Your task to perform on an android device: turn on bluetooth scan Image 0: 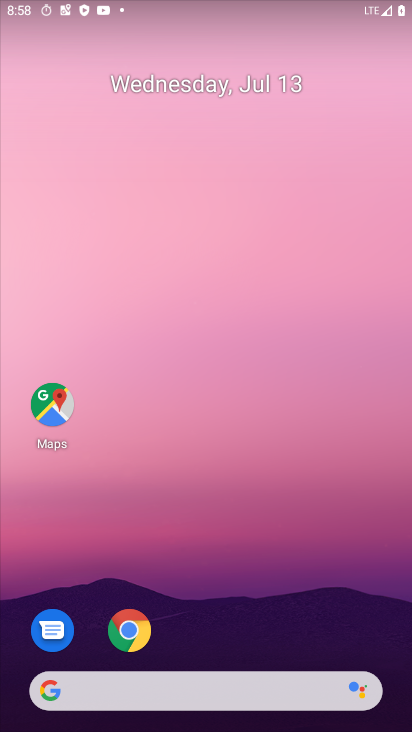
Step 0: drag from (320, 604) to (314, 165)
Your task to perform on an android device: turn on bluetooth scan Image 1: 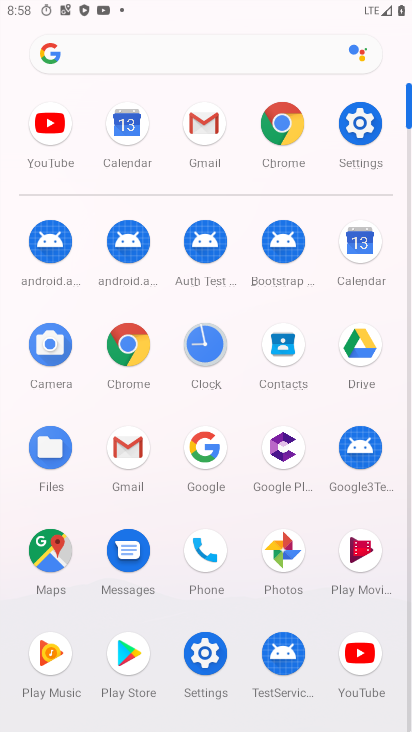
Step 1: click (359, 136)
Your task to perform on an android device: turn on bluetooth scan Image 2: 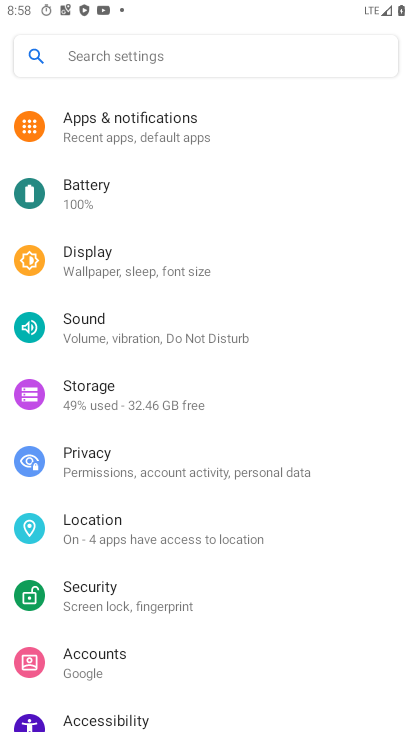
Step 2: drag from (354, 498) to (359, 337)
Your task to perform on an android device: turn on bluetooth scan Image 3: 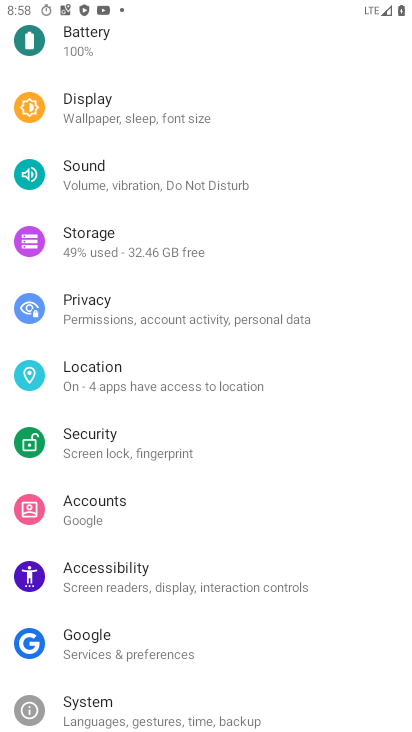
Step 3: drag from (353, 484) to (357, 323)
Your task to perform on an android device: turn on bluetooth scan Image 4: 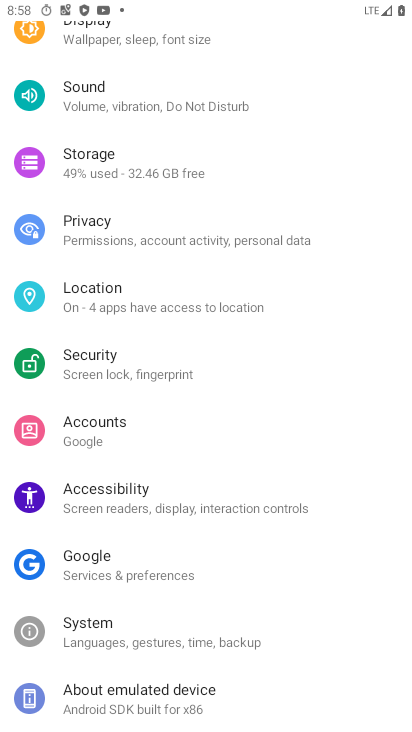
Step 4: drag from (354, 549) to (344, 304)
Your task to perform on an android device: turn on bluetooth scan Image 5: 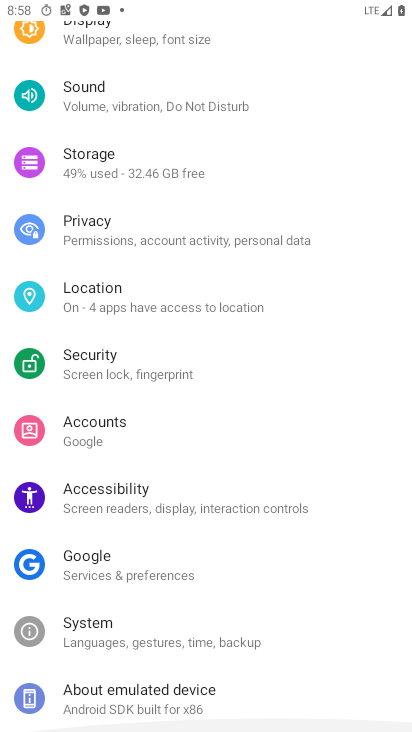
Step 5: drag from (346, 251) to (348, 407)
Your task to perform on an android device: turn on bluetooth scan Image 6: 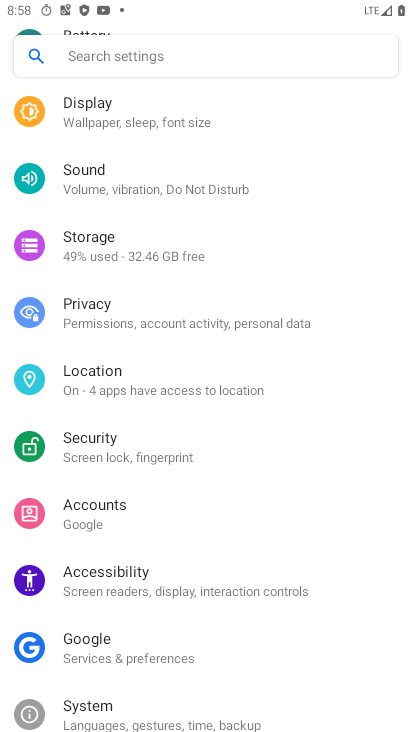
Step 6: drag from (345, 211) to (344, 353)
Your task to perform on an android device: turn on bluetooth scan Image 7: 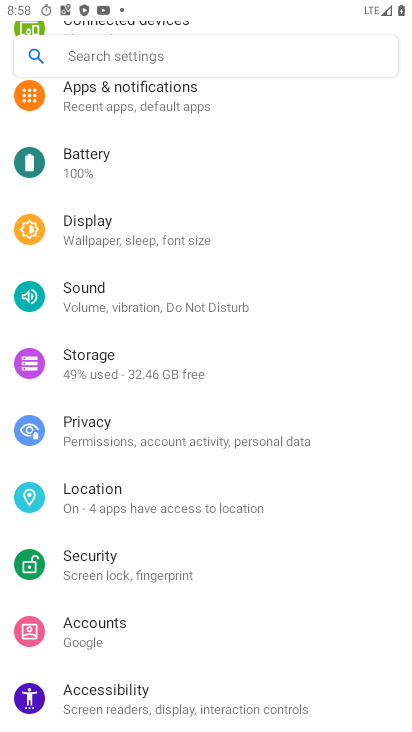
Step 7: drag from (349, 176) to (348, 307)
Your task to perform on an android device: turn on bluetooth scan Image 8: 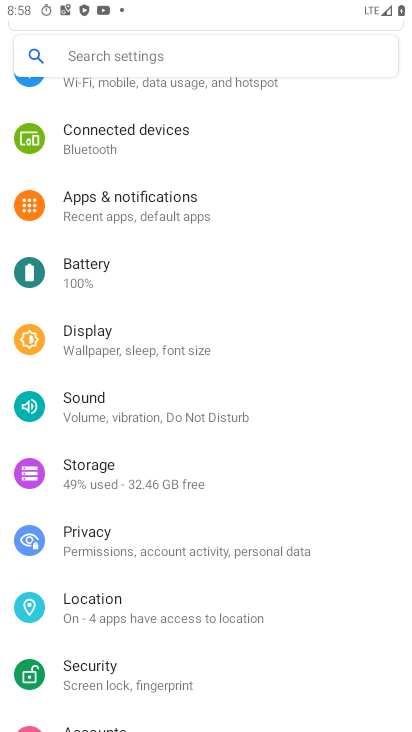
Step 8: drag from (347, 214) to (347, 376)
Your task to perform on an android device: turn on bluetooth scan Image 9: 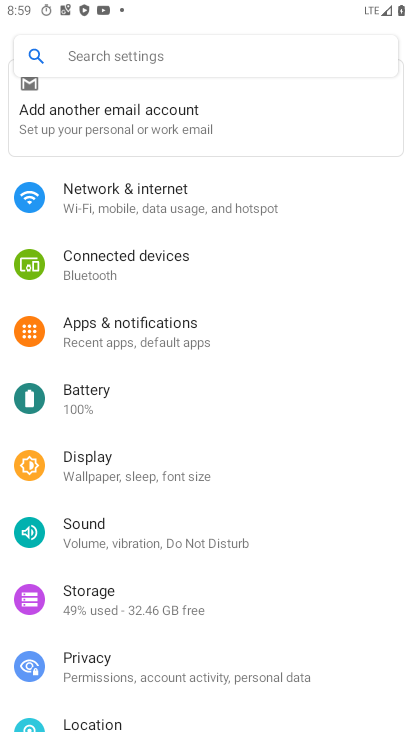
Step 9: drag from (322, 424) to (321, 289)
Your task to perform on an android device: turn on bluetooth scan Image 10: 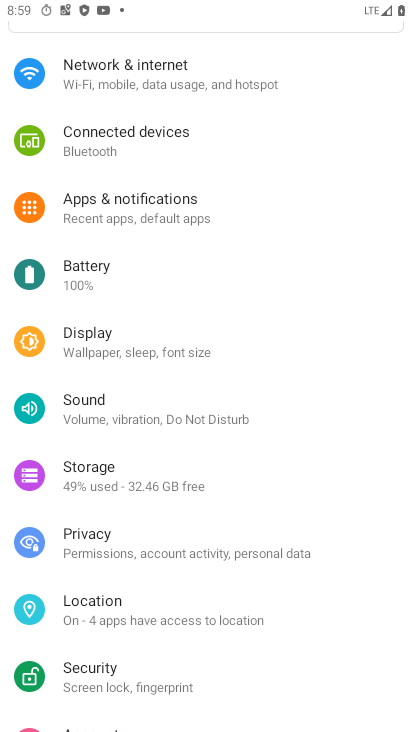
Step 10: drag from (321, 459) to (320, 258)
Your task to perform on an android device: turn on bluetooth scan Image 11: 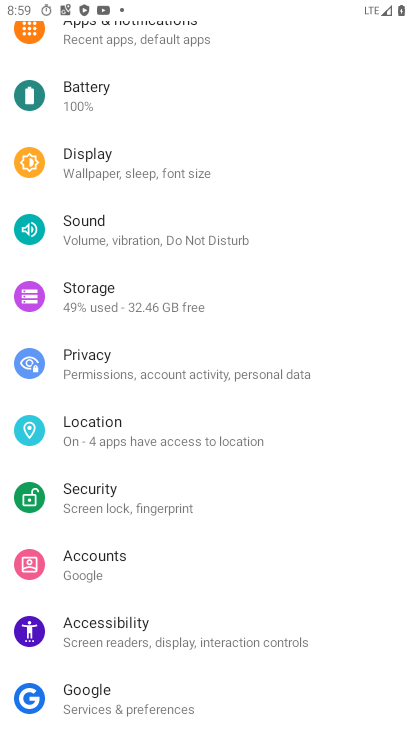
Step 11: click (241, 434)
Your task to perform on an android device: turn on bluetooth scan Image 12: 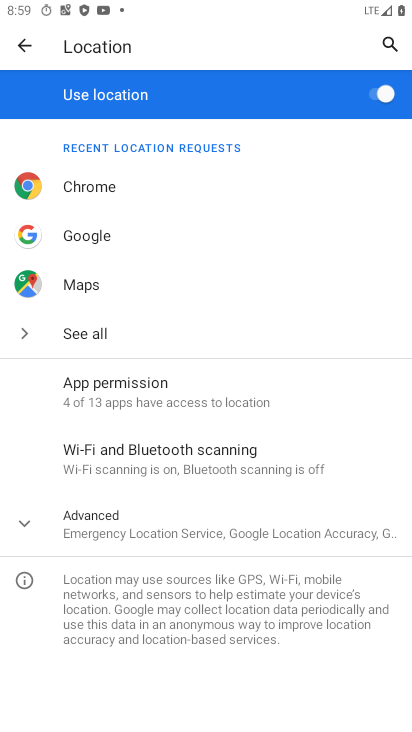
Step 12: click (234, 442)
Your task to perform on an android device: turn on bluetooth scan Image 13: 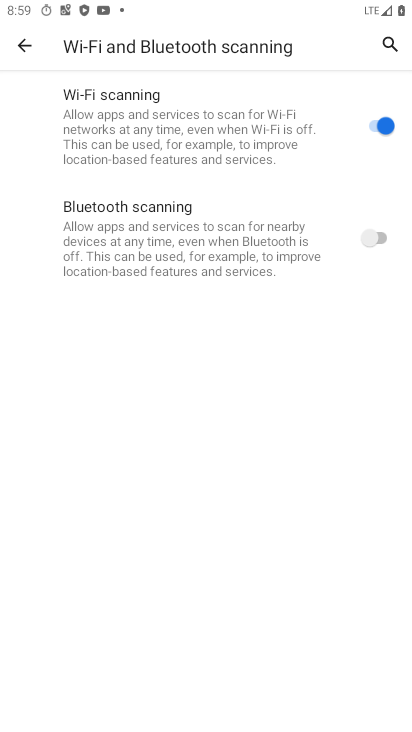
Step 13: click (376, 236)
Your task to perform on an android device: turn on bluetooth scan Image 14: 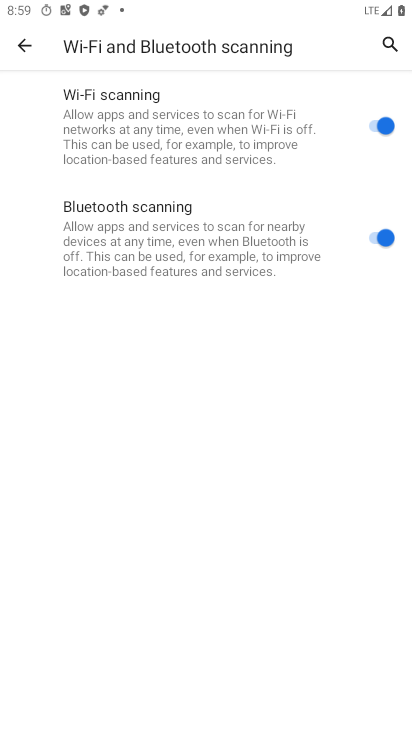
Step 14: task complete